Your task to perform on an android device: turn on bluetooth scan Image 0: 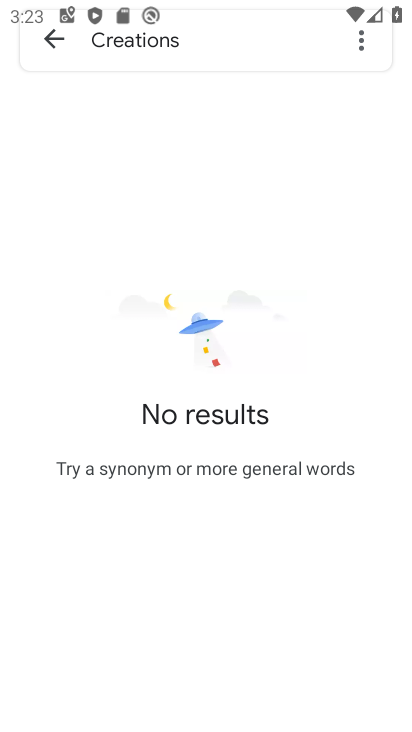
Step 0: press home button
Your task to perform on an android device: turn on bluetooth scan Image 1: 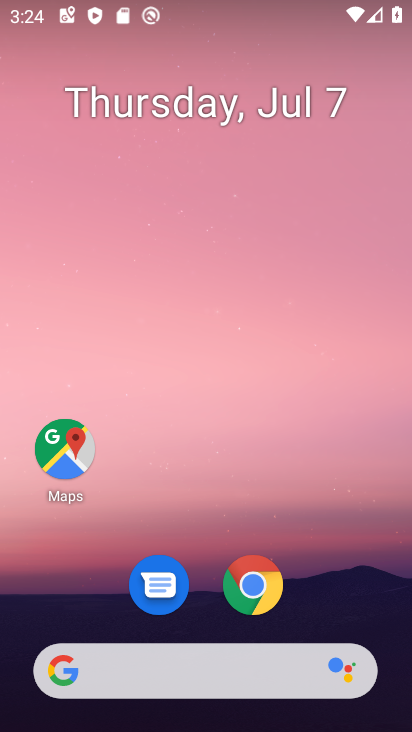
Step 1: drag from (220, 479) to (249, 13)
Your task to perform on an android device: turn on bluetooth scan Image 2: 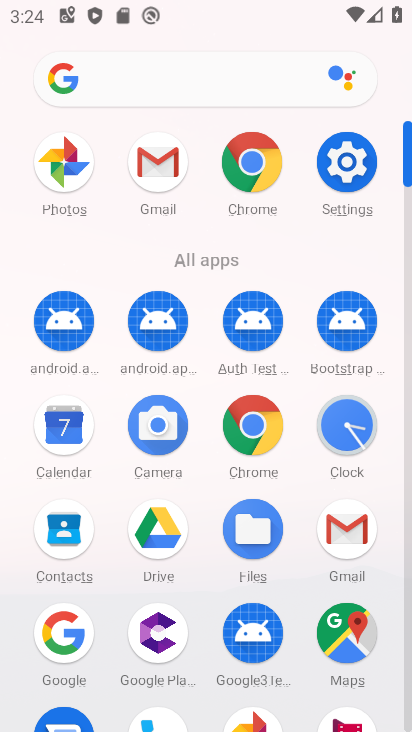
Step 2: click (351, 138)
Your task to perform on an android device: turn on bluetooth scan Image 3: 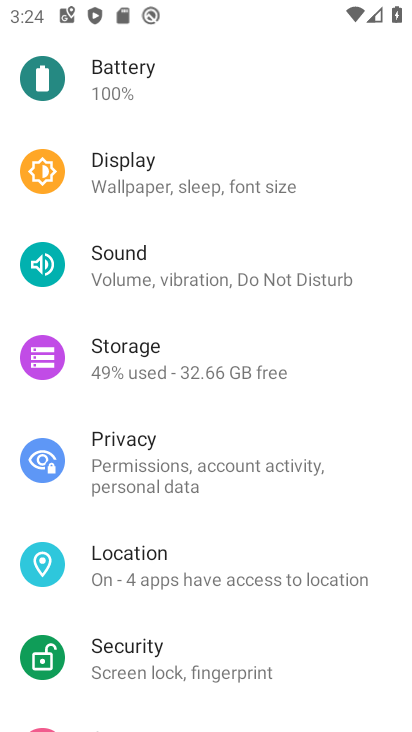
Step 3: click (251, 578)
Your task to perform on an android device: turn on bluetooth scan Image 4: 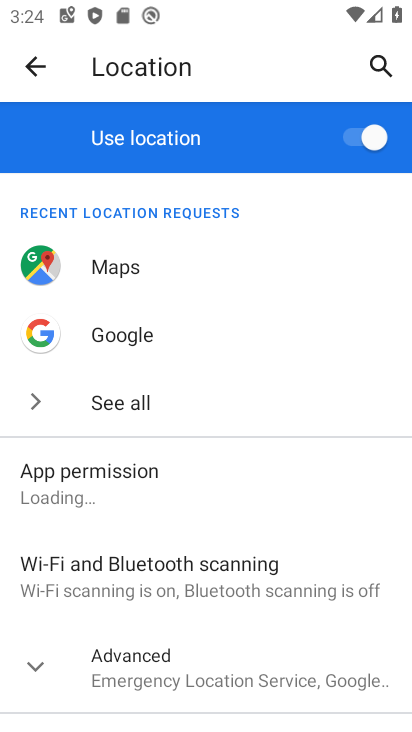
Step 4: drag from (271, 514) to (281, 241)
Your task to perform on an android device: turn on bluetooth scan Image 5: 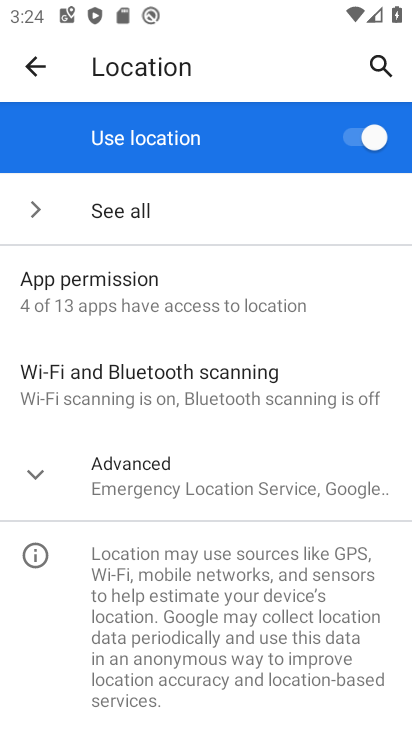
Step 5: click (278, 395)
Your task to perform on an android device: turn on bluetooth scan Image 6: 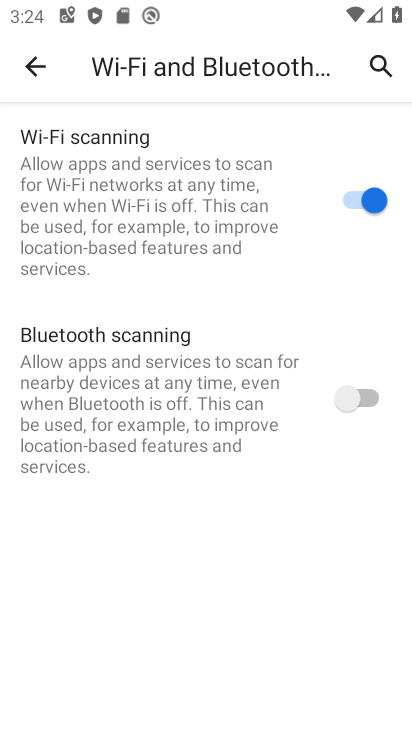
Step 6: click (355, 389)
Your task to perform on an android device: turn on bluetooth scan Image 7: 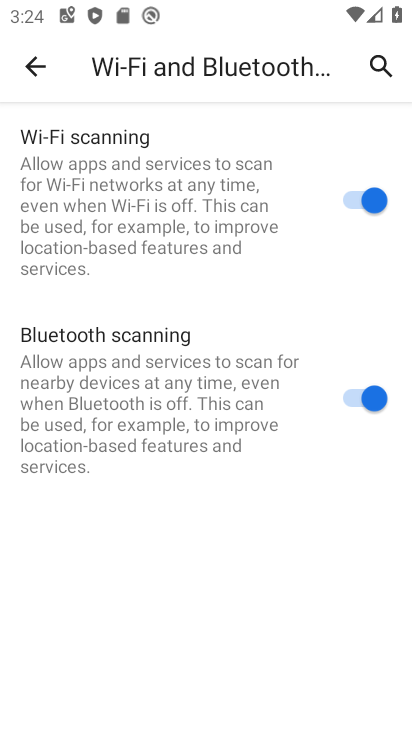
Step 7: task complete